Your task to perform on an android device: What's on my calendar today? Image 0: 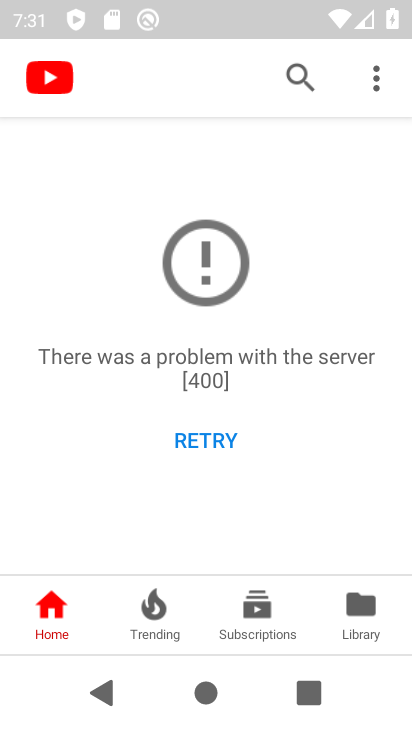
Step 0: press home button
Your task to perform on an android device: What's on my calendar today? Image 1: 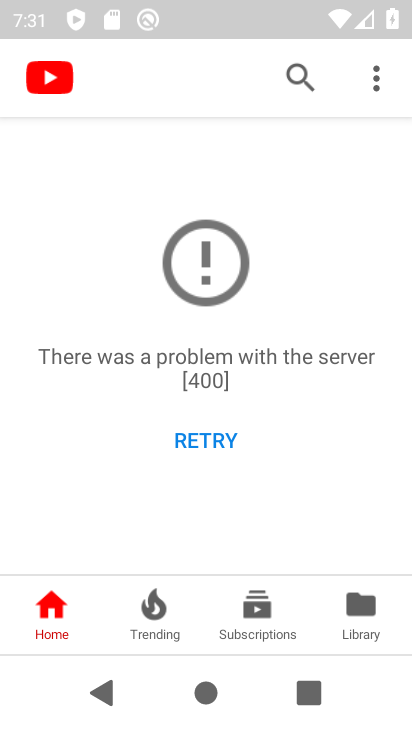
Step 1: press home button
Your task to perform on an android device: What's on my calendar today? Image 2: 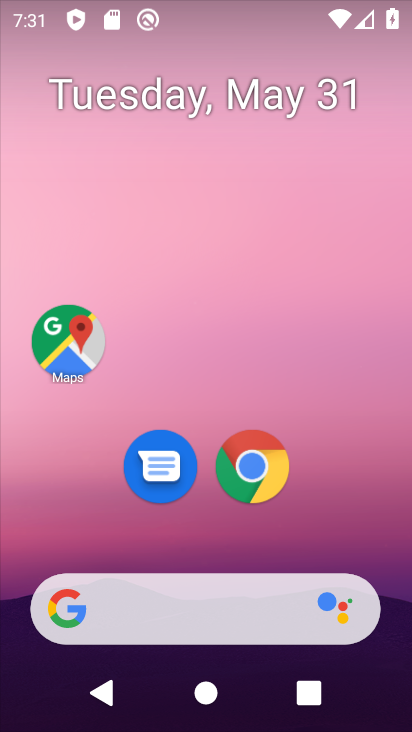
Step 2: drag from (212, 532) to (228, 55)
Your task to perform on an android device: What's on my calendar today? Image 3: 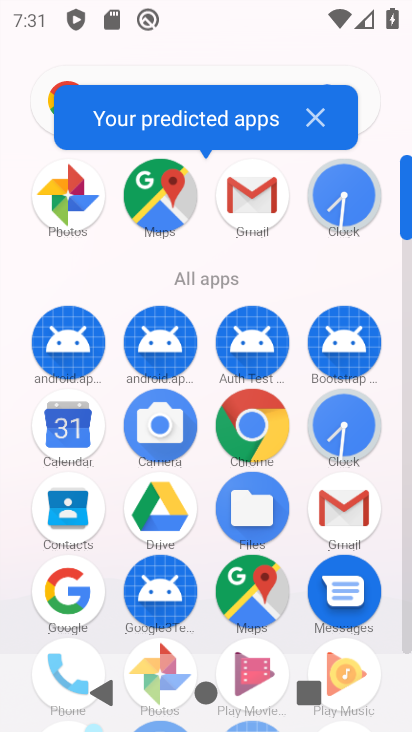
Step 3: click (67, 418)
Your task to perform on an android device: What's on my calendar today? Image 4: 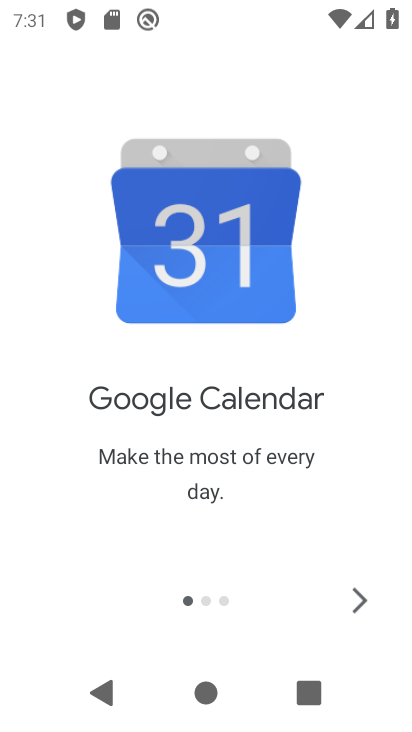
Step 4: click (357, 604)
Your task to perform on an android device: What's on my calendar today? Image 5: 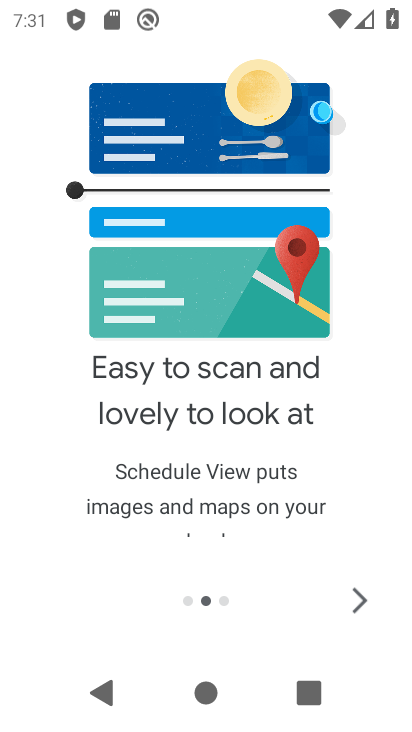
Step 5: click (357, 604)
Your task to perform on an android device: What's on my calendar today? Image 6: 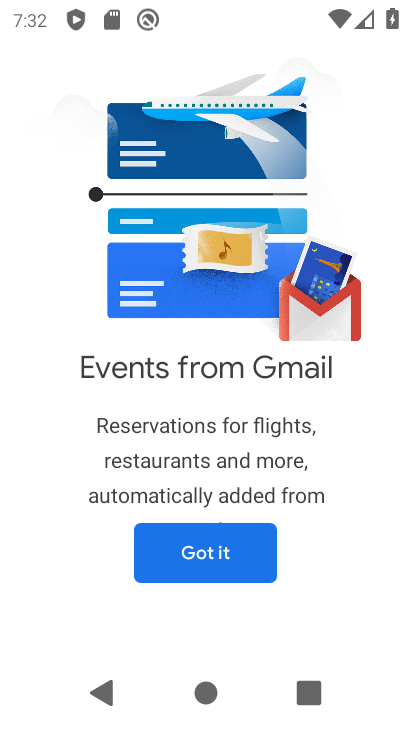
Step 6: click (199, 566)
Your task to perform on an android device: What's on my calendar today? Image 7: 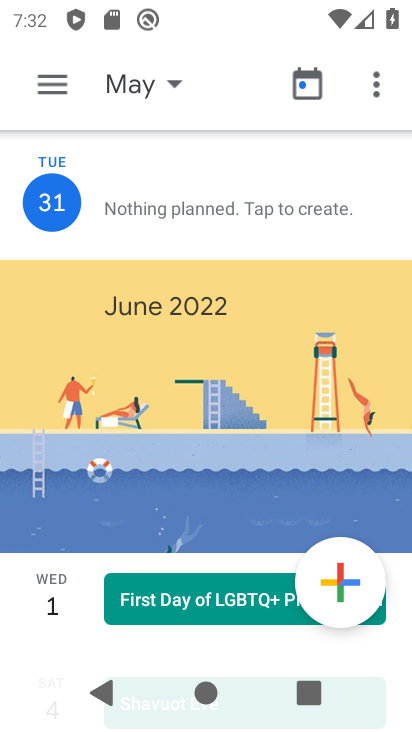
Step 7: task complete